Your task to perform on an android device: turn on airplane mode Image 0: 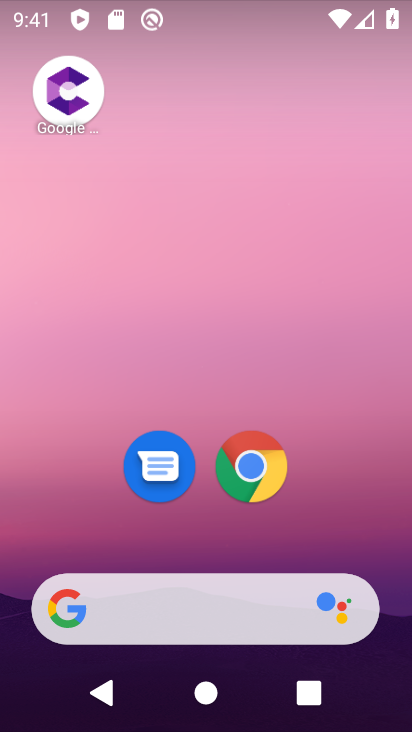
Step 0: drag from (338, 507) to (226, 100)
Your task to perform on an android device: turn on airplane mode Image 1: 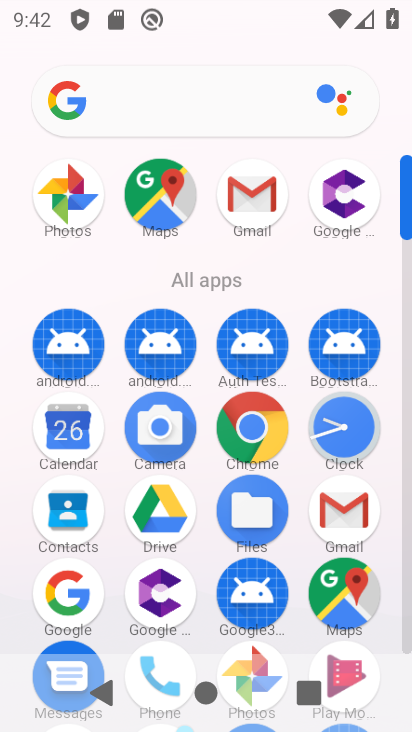
Step 1: drag from (206, 556) to (164, 177)
Your task to perform on an android device: turn on airplane mode Image 2: 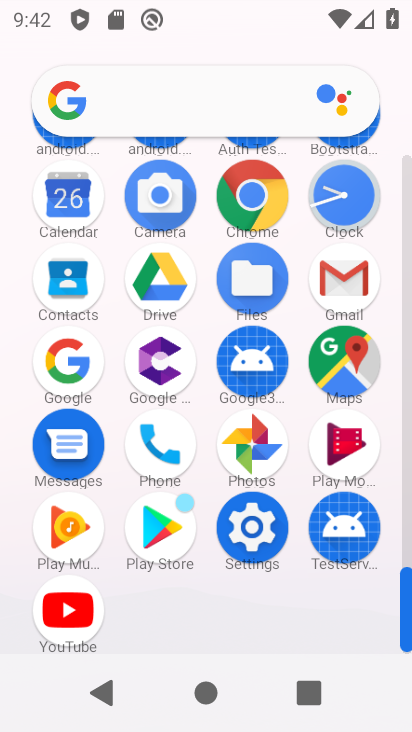
Step 2: click (260, 530)
Your task to perform on an android device: turn on airplane mode Image 3: 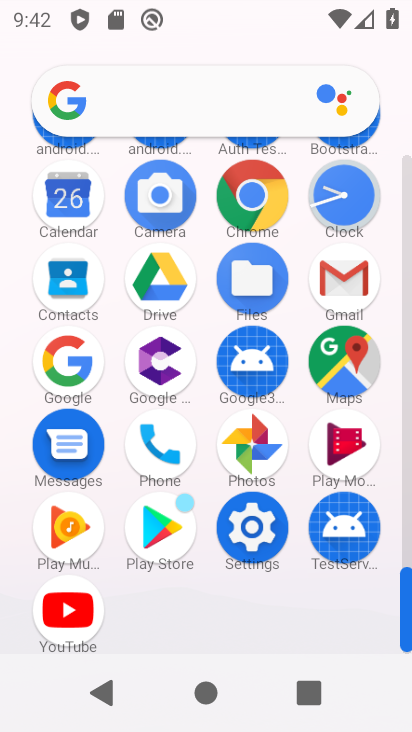
Step 3: click (249, 520)
Your task to perform on an android device: turn on airplane mode Image 4: 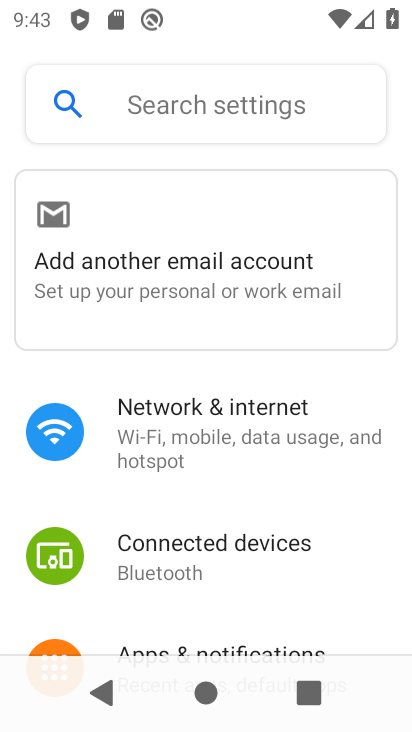
Step 4: click (204, 410)
Your task to perform on an android device: turn on airplane mode Image 5: 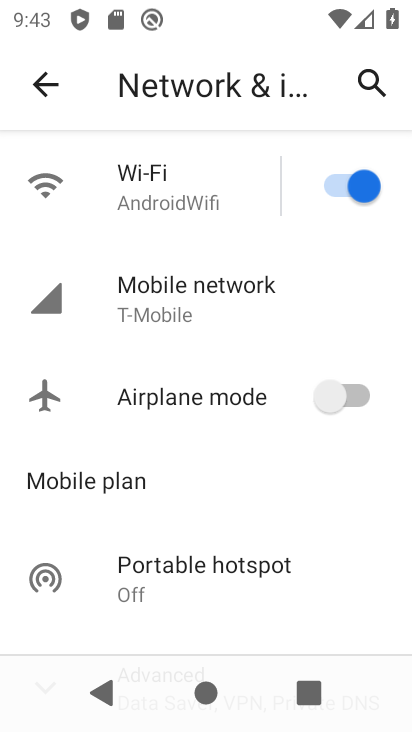
Step 5: click (333, 384)
Your task to perform on an android device: turn on airplane mode Image 6: 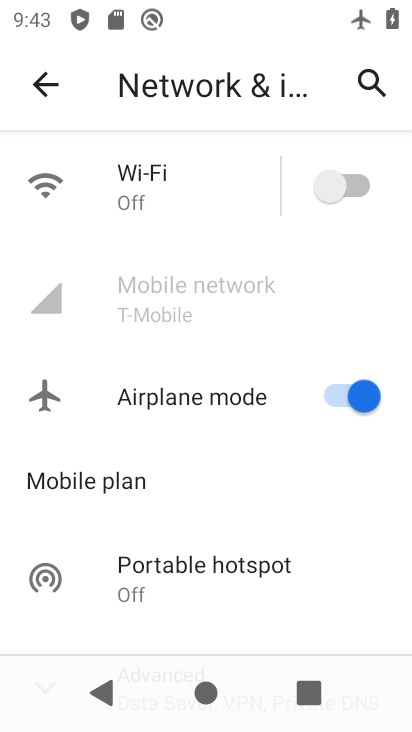
Step 6: task complete